Your task to perform on an android device: Go to sound settings Image 0: 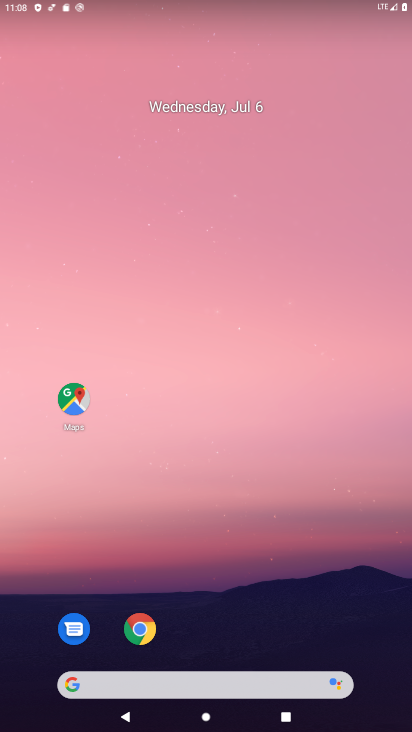
Step 0: drag from (213, 629) to (200, 175)
Your task to perform on an android device: Go to sound settings Image 1: 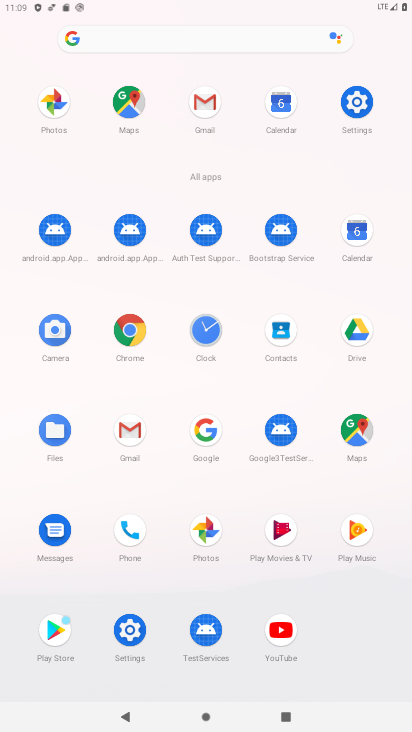
Step 1: click (357, 111)
Your task to perform on an android device: Go to sound settings Image 2: 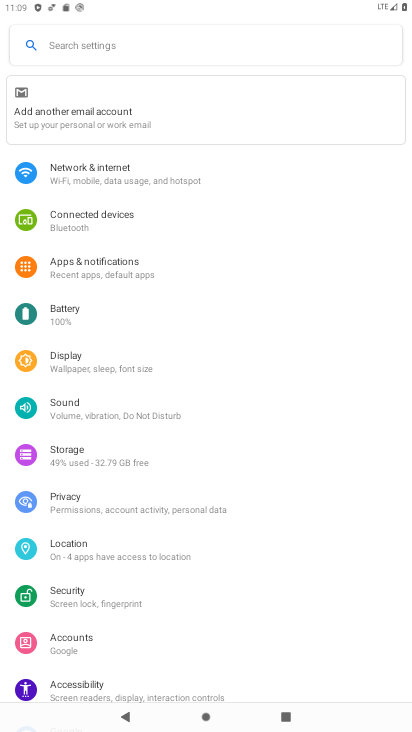
Step 2: click (137, 403)
Your task to perform on an android device: Go to sound settings Image 3: 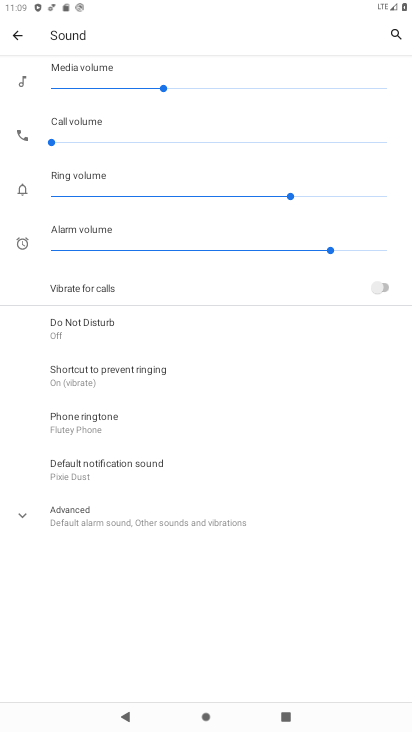
Step 3: task complete